Your task to perform on an android device: Open Amazon Image 0: 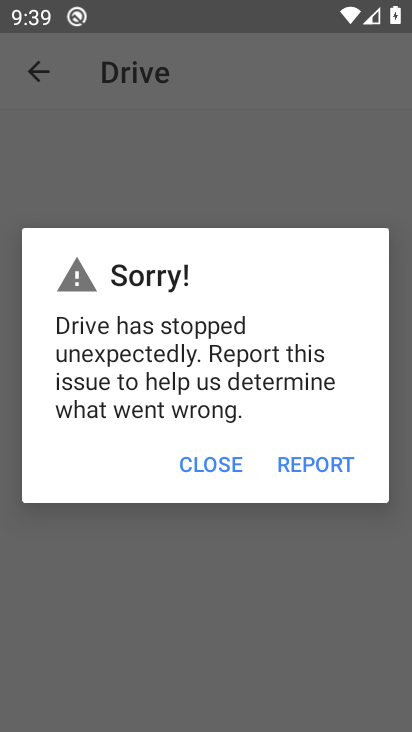
Step 0: press home button
Your task to perform on an android device: Open Amazon Image 1: 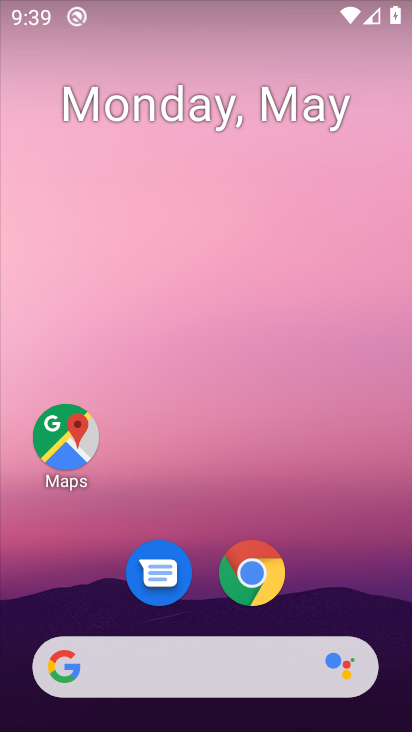
Step 1: click (250, 575)
Your task to perform on an android device: Open Amazon Image 2: 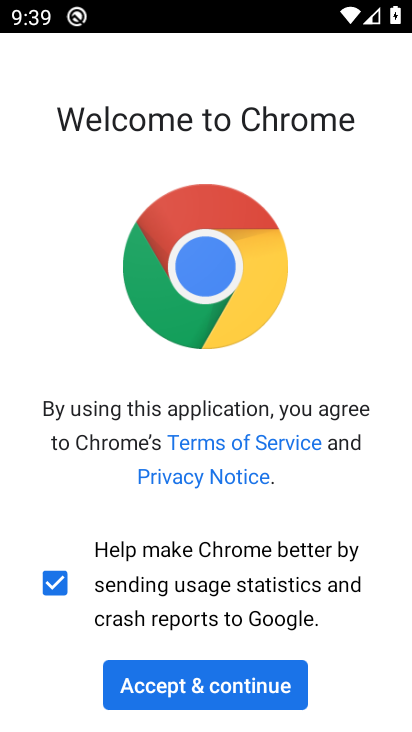
Step 2: click (208, 683)
Your task to perform on an android device: Open Amazon Image 3: 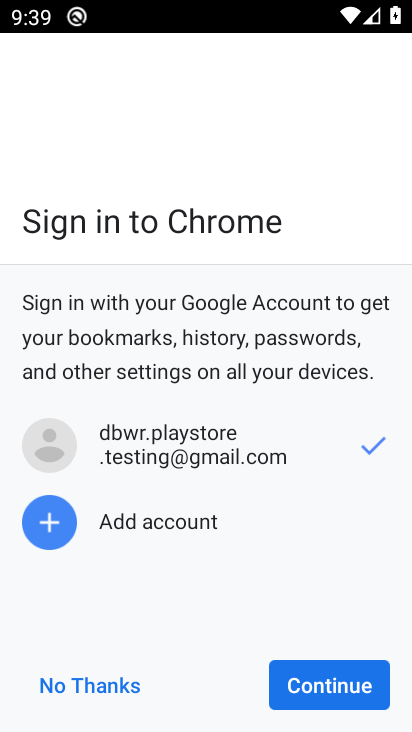
Step 3: click (357, 681)
Your task to perform on an android device: Open Amazon Image 4: 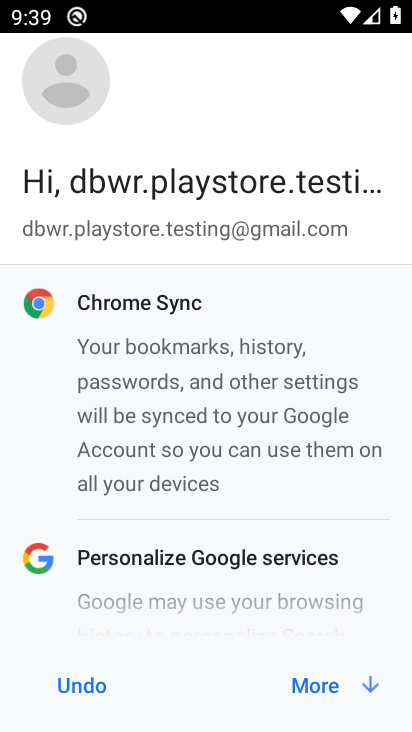
Step 4: click (337, 685)
Your task to perform on an android device: Open Amazon Image 5: 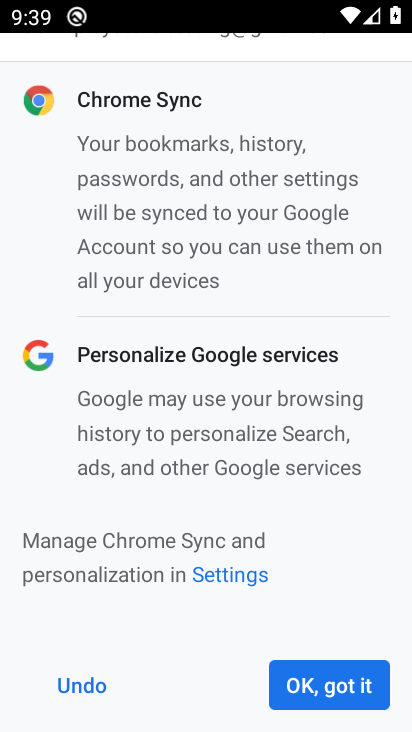
Step 5: click (337, 685)
Your task to perform on an android device: Open Amazon Image 6: 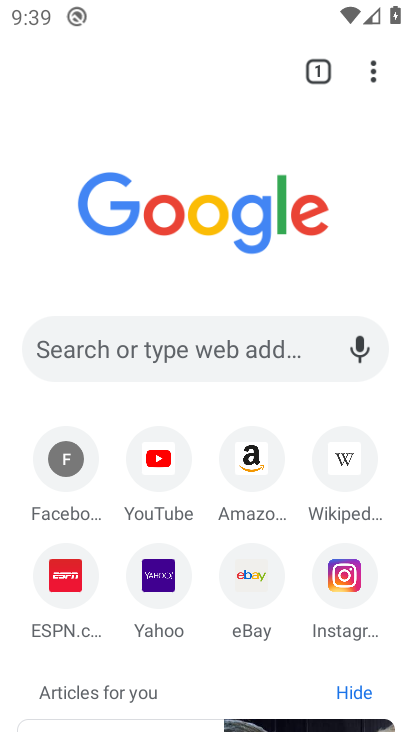
Step 6: click (252, 468)
Your task to perform on an android device: Open Amazon Image 7: 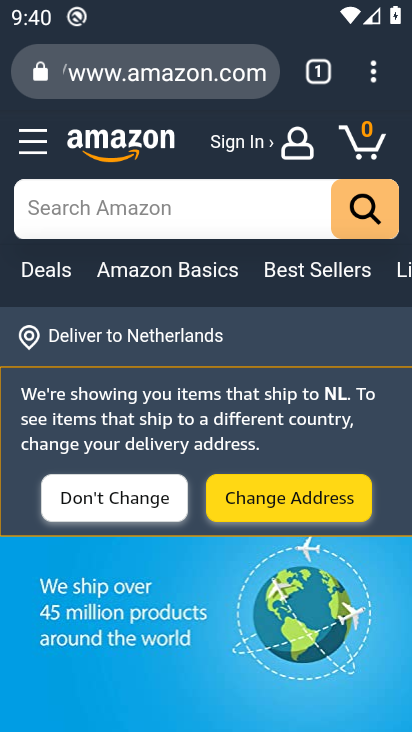
Step 7: task complete